Your task to perform on an android device: What's on my calendar tomorrow? Image 0: 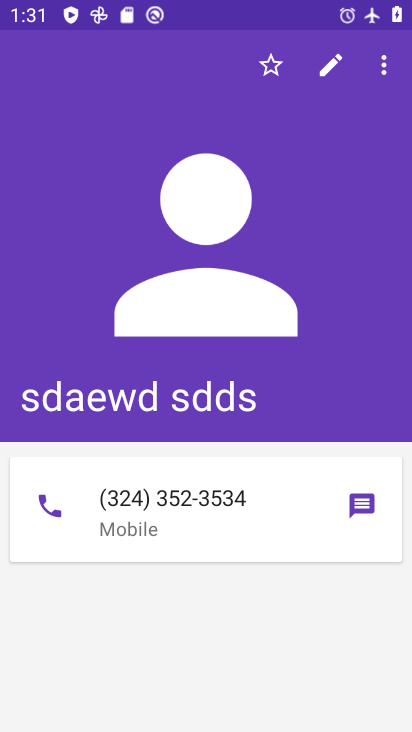
Step 0: press home button
Your task to perform on an android device: What's on my calendar tomorrow? Image 1: 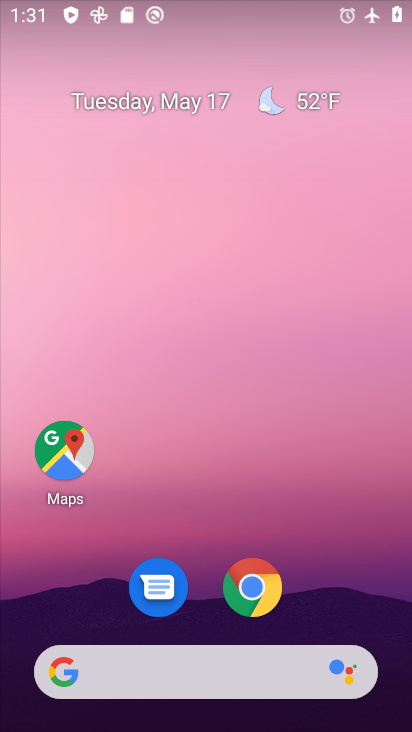
Step 1: drag from (346, 575) to (280, 15)
Your task to perform on an android device: What's on my calendar tomorrow? Image 2: 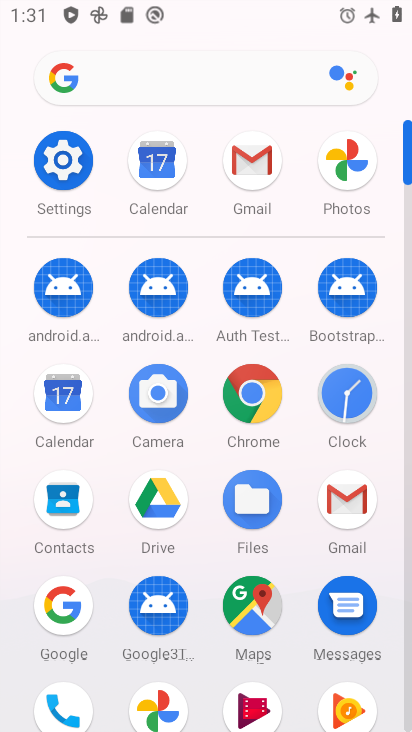
Step 2: click (73, 153)
Your task to perform on an android device: What's on my calendar tomorrow? Image 3: 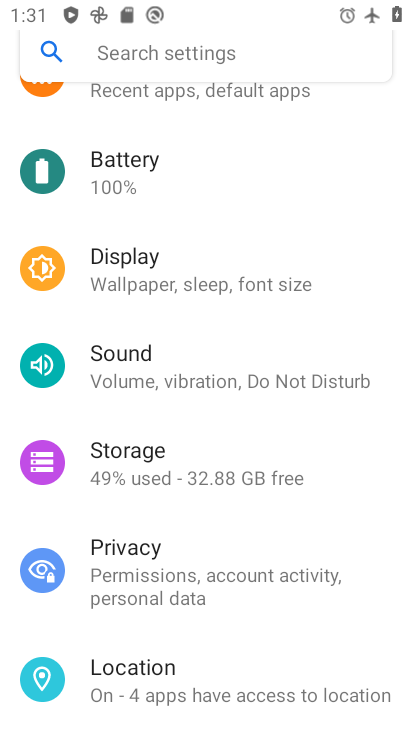
Step 3: click (307, 153)
Your task to perform on an android device: What's on my calendar tomorrow? Image 4: 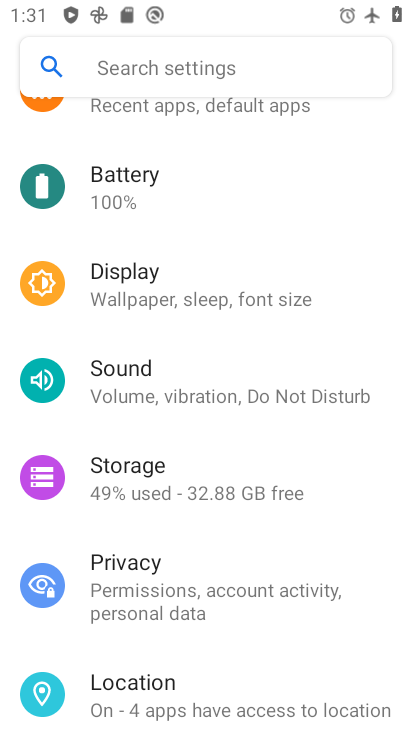
Step 4: drag from (279, 283) to (287, 468)
Your task to perform on an android device: What's on my calendar tomorrow? Image 5: 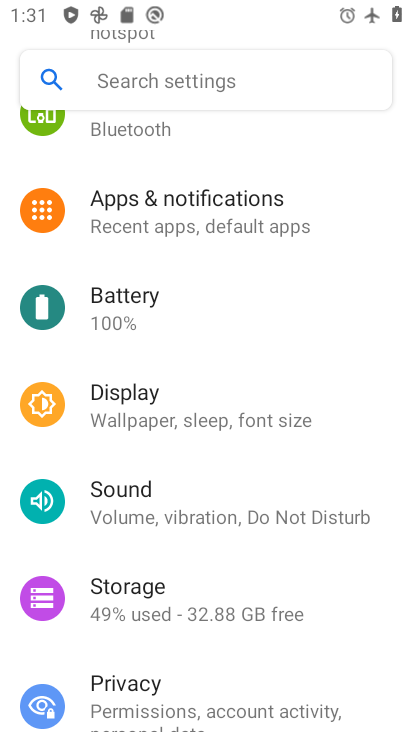
Step 5: drag from (281, 182) to (348, 436)
Your task to perform on an android device: What's on my calendar tomorrow? Image 6: 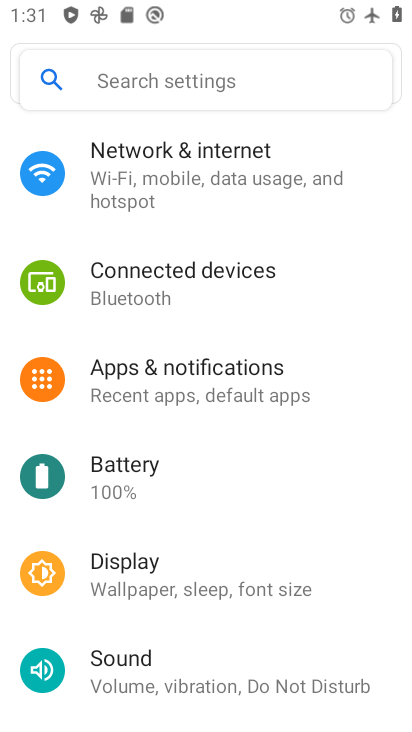
Step 6: click (273, 167)
Your task to perform on an android device: What's on my calendar tomorrow? Image 7: 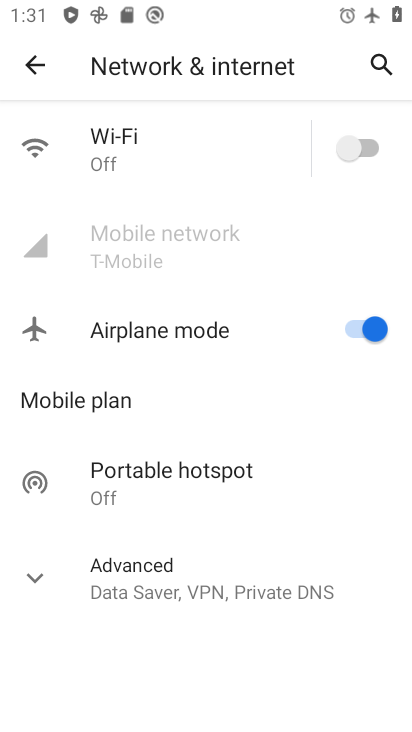
Step 7: click (372, 340)
Your task to perform on an android device: What's on my calendar tomorrow? Image 8: 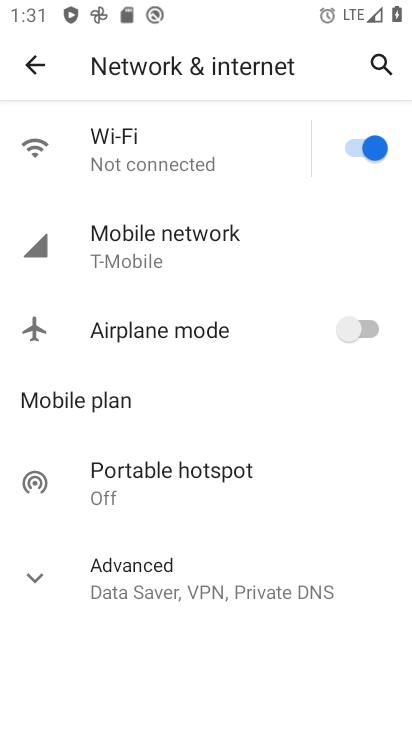
Step 8: press home button
Your task to perform on an android device: What's on my calendar tomorrow? Image 9: 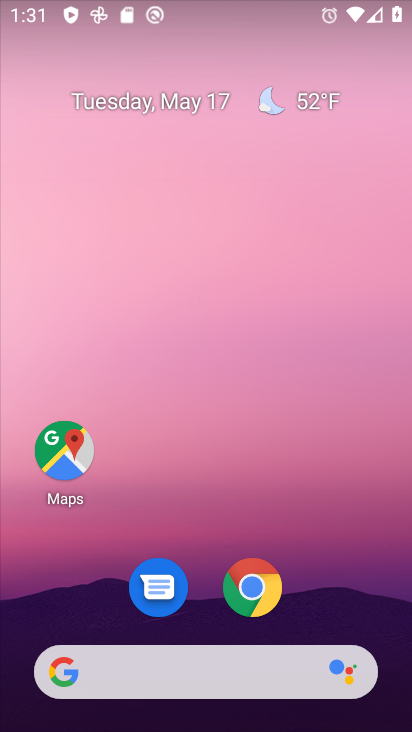
Step 9: drag from (351, 561) to (316, 259)
Your task to perform on an android device: What's on my calendar tomorrow? Image 10: 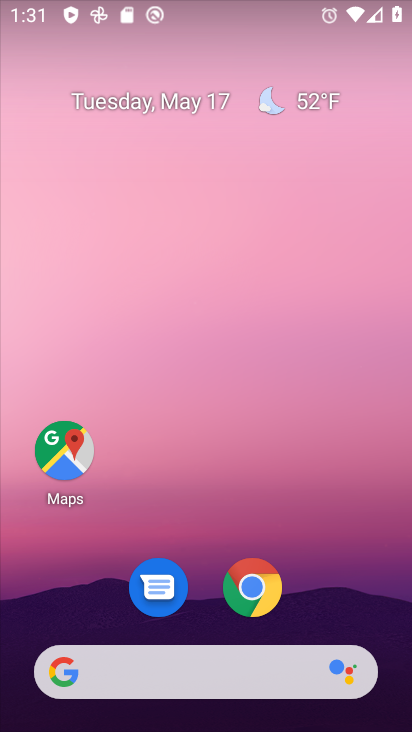
Step 10: drag from (345, 596) to (274, 211)
Your task to perform on an android device: What's on my calendar tomorrow? Image 11: 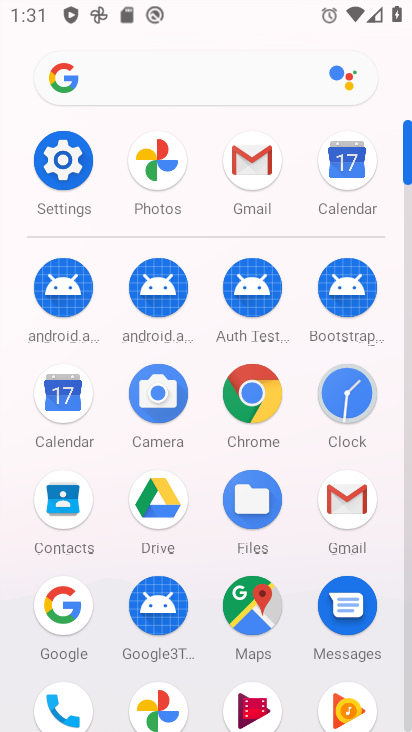
Step 11: click (67, 409)
Your task to perform on an android device: What's on my calendar tomorrow? Image 12: 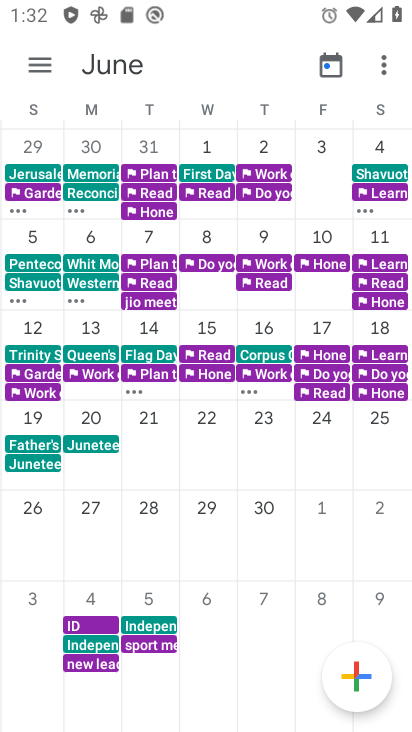
Step 12: task complete